Your task to perform on an android device: toggle location history Image 0: 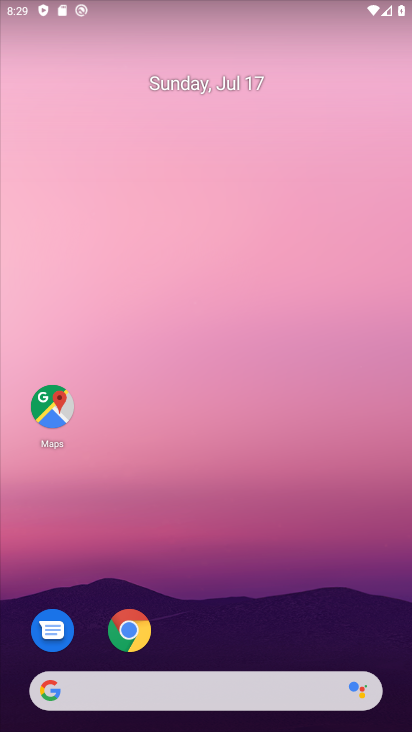
Step 0: drag from (279, 646) to (204, 256)
Your task to perform on an android device: toggle location history Image 1: 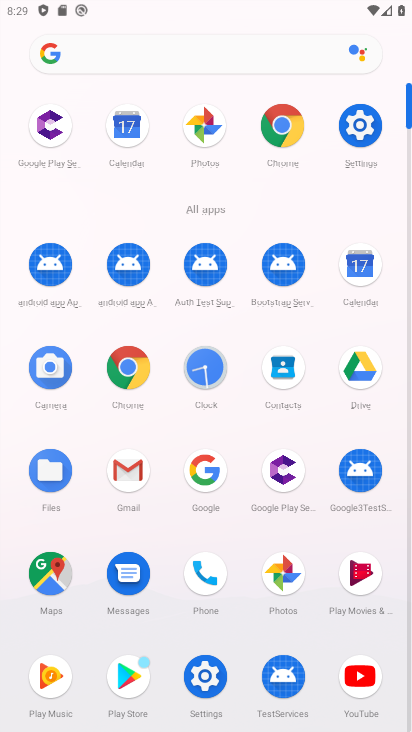
Step 1: click (199, 681)
Your task to perform on an android device: toggle location history Image 2: 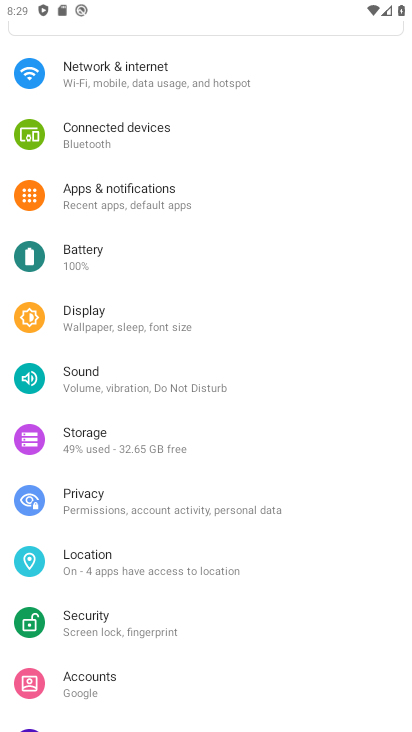
Step 2: click (235, 581)
Your task to perform on an android device: toggle location history Image 3: 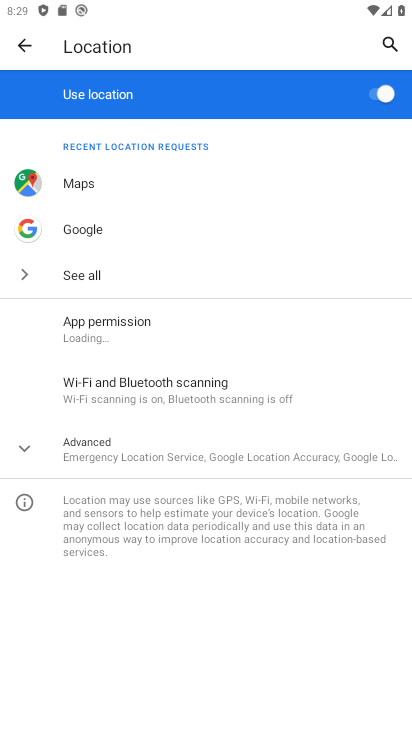
Step 3: click (241, 433)
Your task to perform on an android device: toggle location history Image 4: 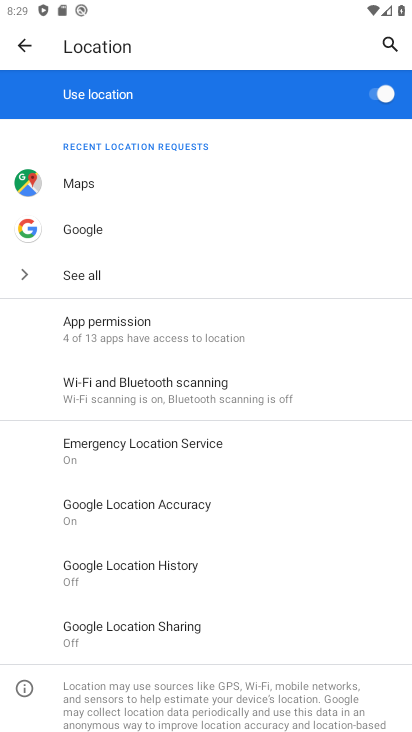
Step 4: click (174, 566)
Your task to perform on an android device: toggle location history Image 5: 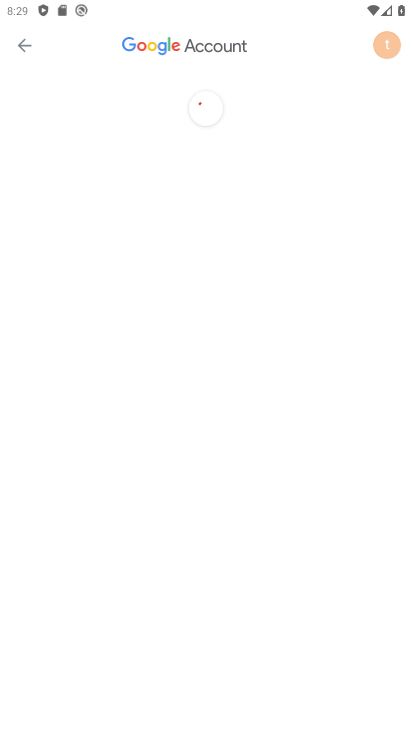
Step 5: task complete